Your task to perform on an android device: see creations saved in the google photos Image 0: 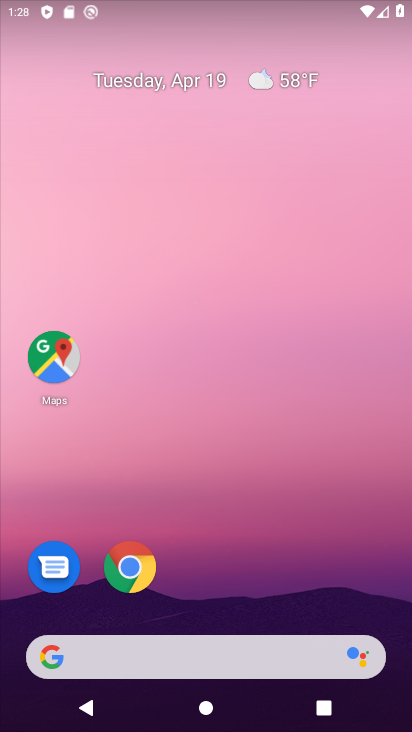
Step 0: drag from (284, 560) to (292, 216)
Your task to perform on an android device: see creations saved in the google photos Image 1: 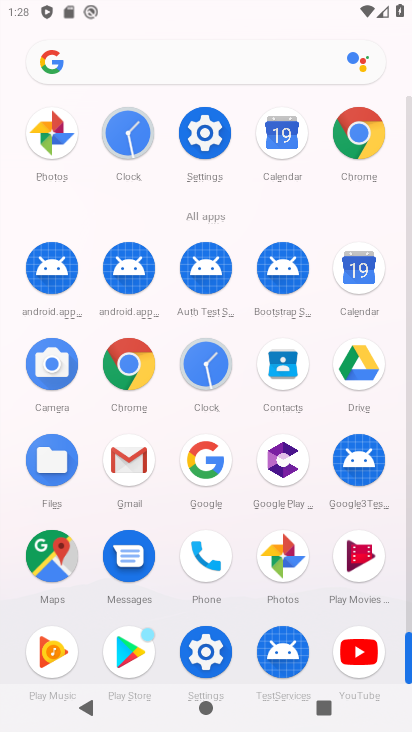
Step 1: click (46, 141)
Your task to perform on an android device: see creations saved in the google photos Image 2: 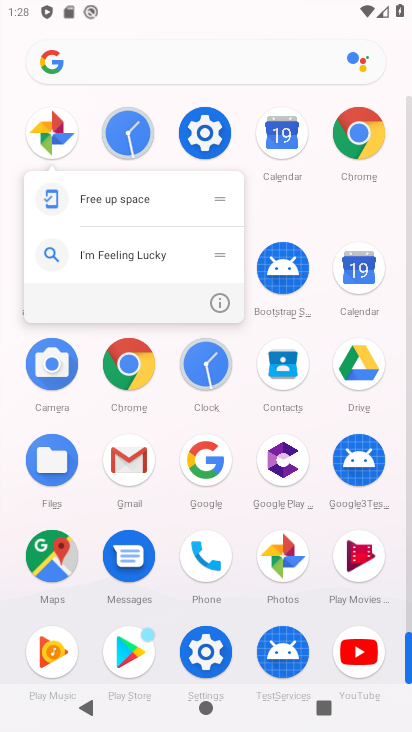
Step 2: click (53, 141)
Your task to perform on an android device: see creations saved in the google photos Image 3: 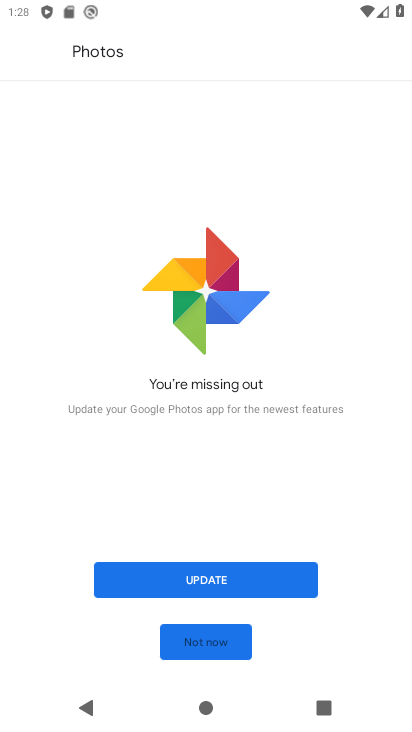
Step 3: click (260, 576)
Your task to perform on an android device: see creations saved in the google photos Image 4: 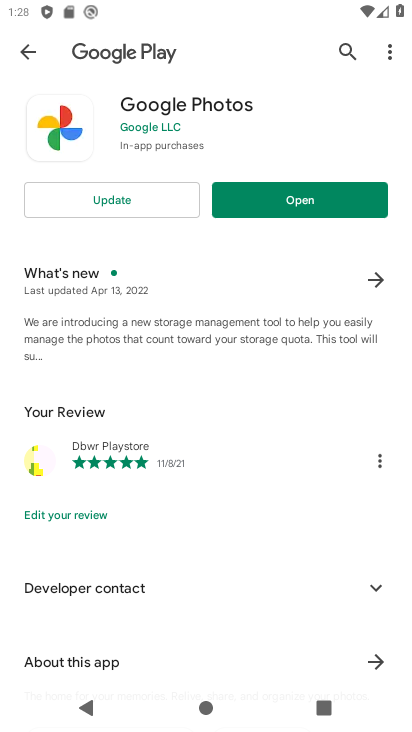
Step 4: click (110, 198)
Your task to perform on an android device: see creations saved in the google photos Image 5: 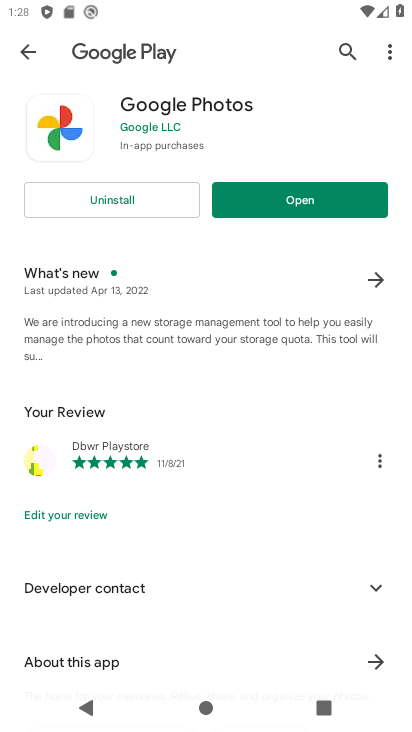
Step 5: click (254, 211)
Your task to perform on an android device: see creations saved in the google photos Image 6: 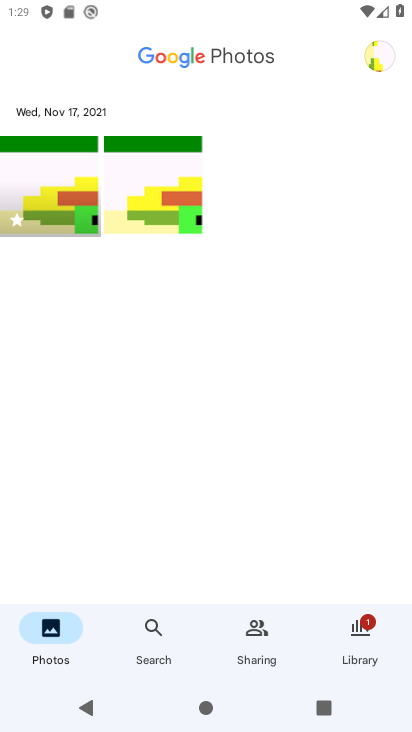
Step 6: click (148, 636)
Your task to perform on an android device: see creations saved in the google photos Image 7: 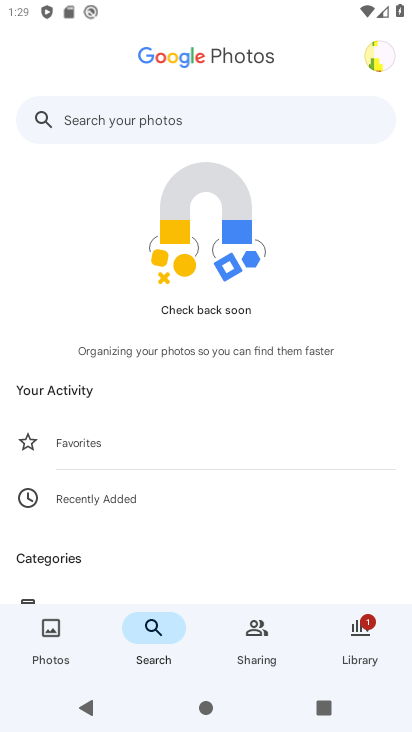
Step 7: drag from (151, 540) to (234, 167)
Your task to perform on an android device: see creations saved in the google photos Image 8: 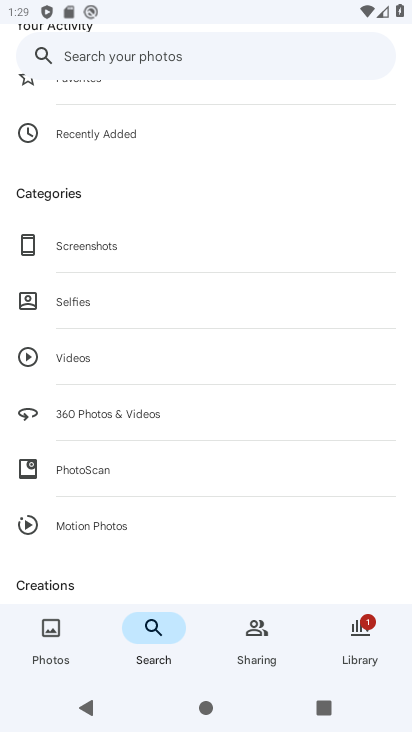
Step 8: drag from (207, 502) to (251, 178)
Your task to perform on an android device: see creations saved in the google photos Image 9: 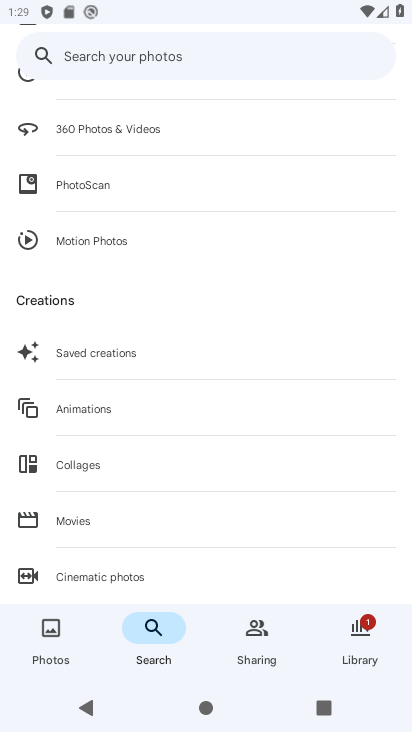
Step 9: click (126, 359)
Your task to perform on an android device: see creations saved in the google photos Image 10: 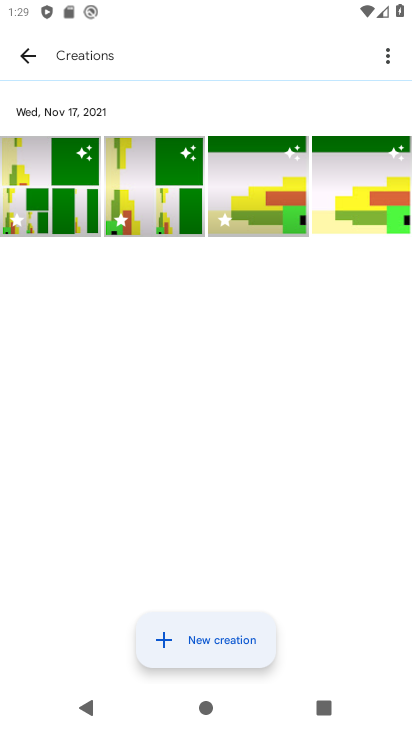
Step 10: task complete